Your task to perform on an android device: Go to Yahoo.com Image 0: 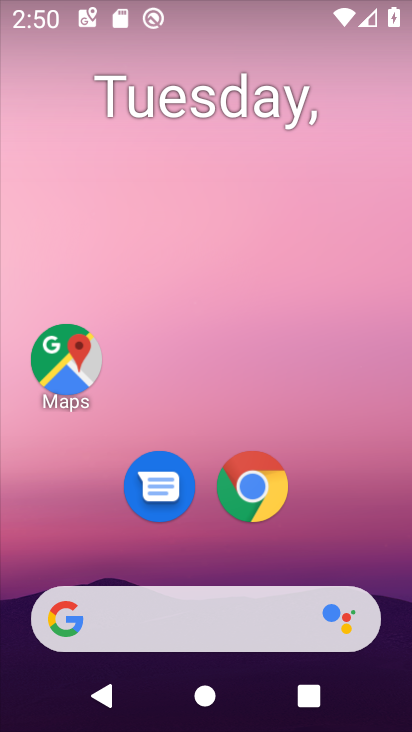
Step 0: click (255, 479)
Your task to perform on an android device: Go to Yahoo.com Image 1: 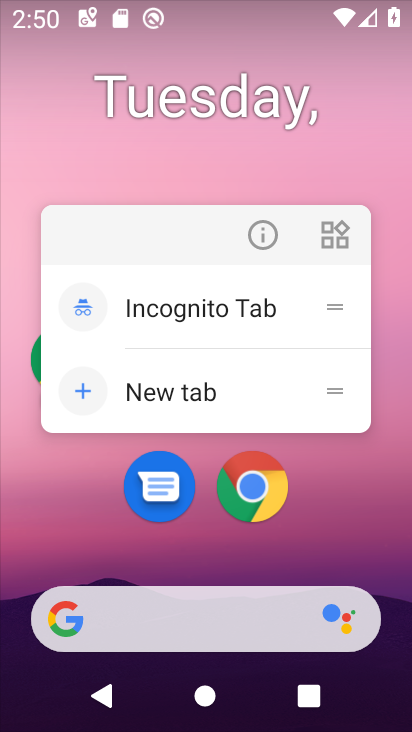
Step 1: click (247, 481)
Your task to perform on an android device: Go to Yahoo.com Image 2: 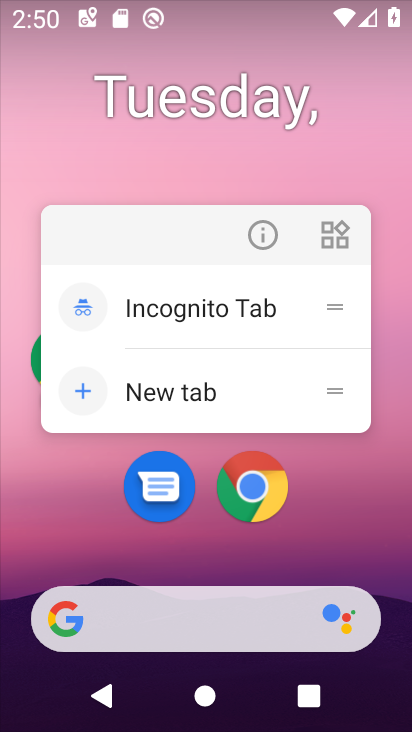
Step 2: click (252, 477)
Your task to perform on an android device: Go to Yahoo.com Image 3: 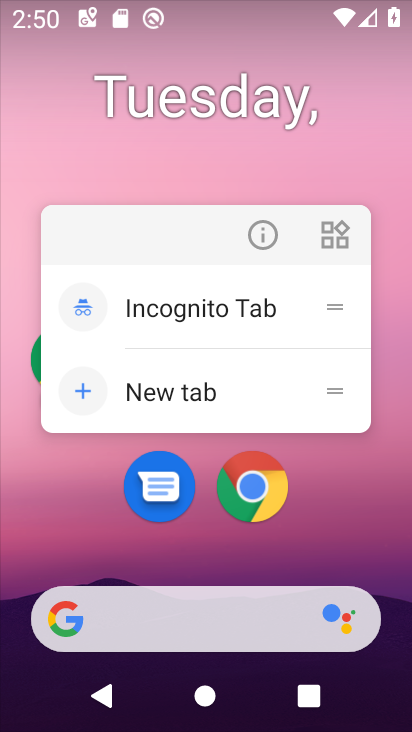
Step 3: click (246, 558)
Your task to perform on an android device: Go to Yahoo.com Image 4: 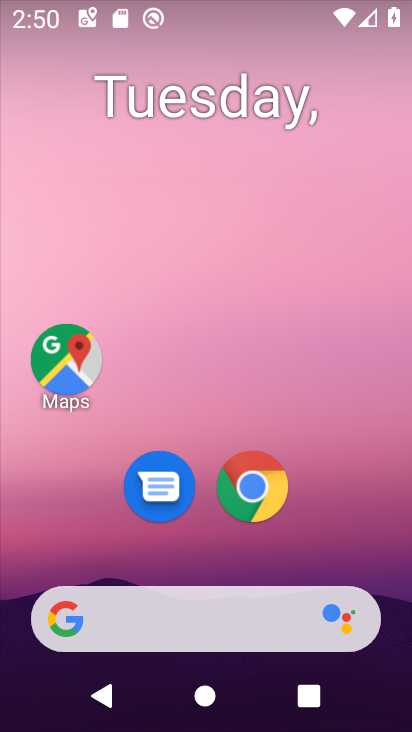
Step 4: drag from (310, 570) to (318, 0)
Your task to perform on an android device: Go to Yahoo.com Image 5: 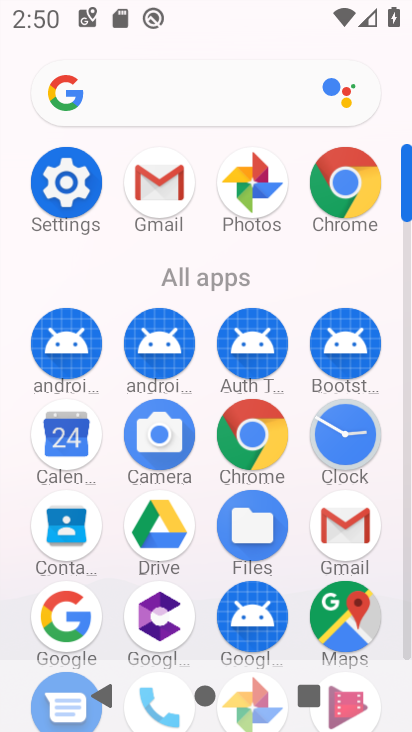
Step 5: click (254, 430)
Your task to perform on an android device: Go to Yahoo.com Image 6: 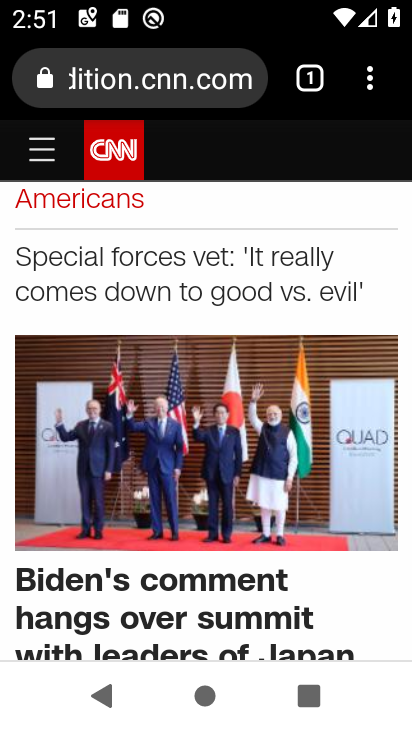
Step 6: click (307, 84)
Your task to perform on an android device: Go to Yahoo.com Image 7: 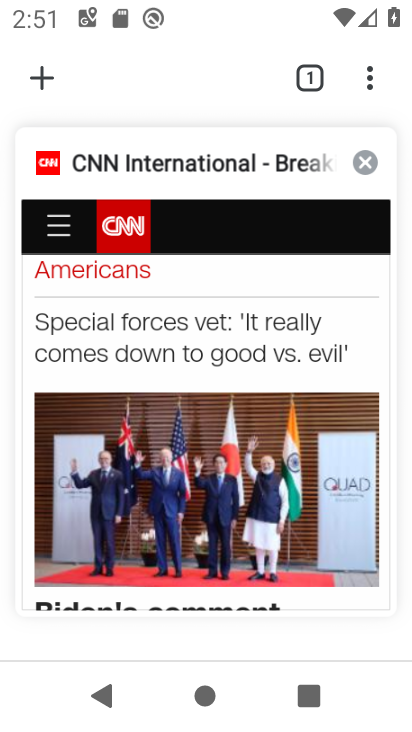
Step 7: click (367, 167)
Your task to perform on an android device: Go to Yahoo.com Image 8: 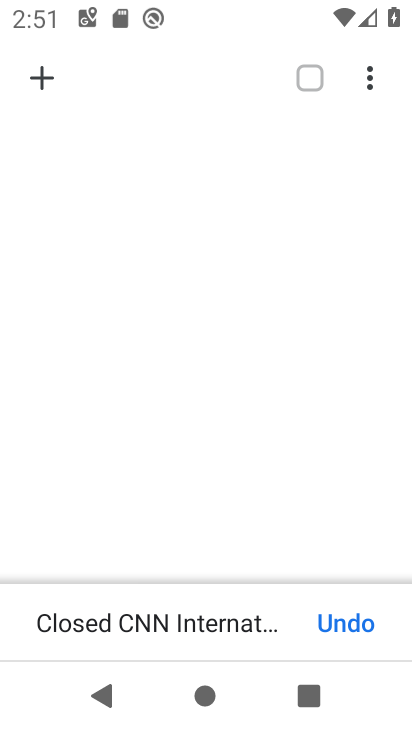
Step 8: click (51, 75)
Your task to perform on an android device: Go to Yahoo.com Image 9: 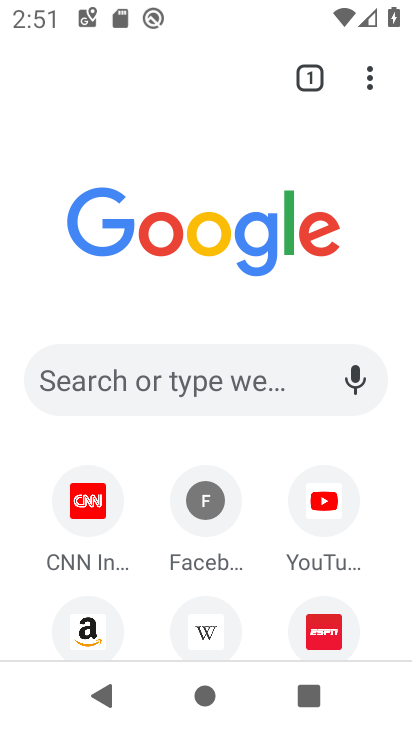
Step 9: drag from (231, 568) to (230, 233)
Your task to perform on an android device: Go to Yahoo.com Image 10: 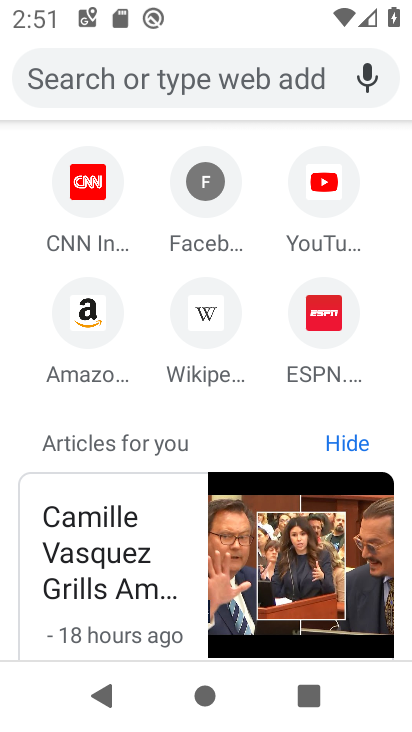
Step 10: click (133, 84)
Your task to perform on an android device: Go to Yahoo.com Image 11: 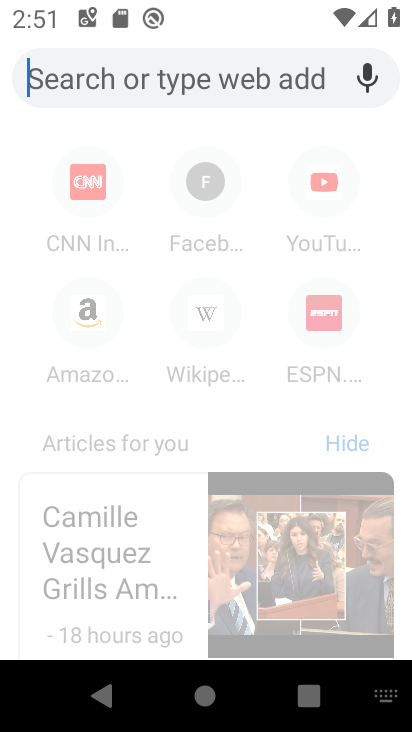
Step 11: type "yahoo.com"
Your task to perform on an android device: Go to Yahoo.com Image 12: 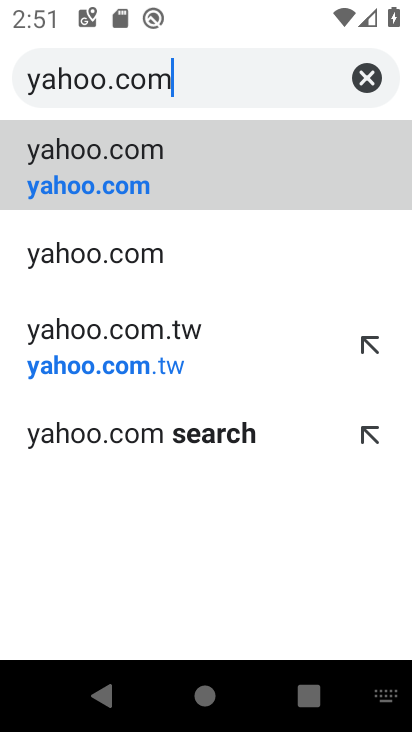
Step 12: type ""
Your task to perform on an android device: Go to Yahoo.com Image 13: 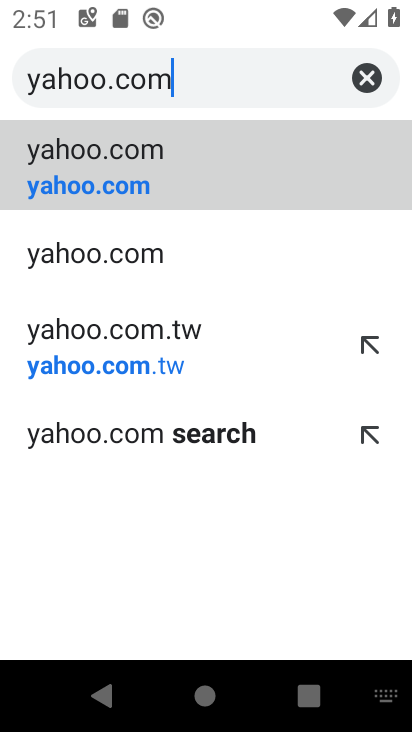
Step 13: click (149, 186)
Your task to perform on an android device: Go to Yahoo.com Image 14: 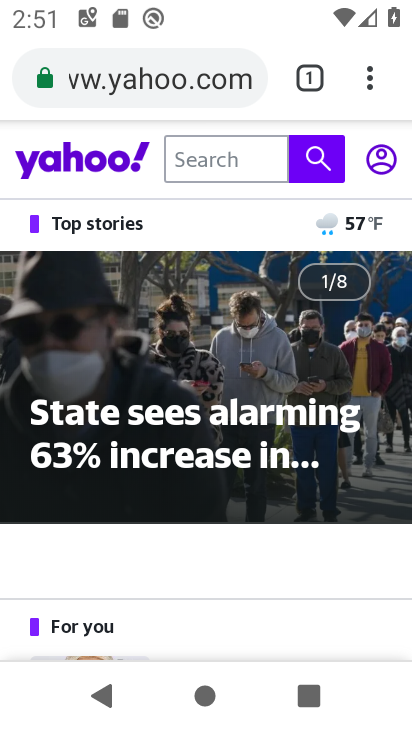
Step 14: task complete